Your task to perform on an android device: change notifications settings Image 0: 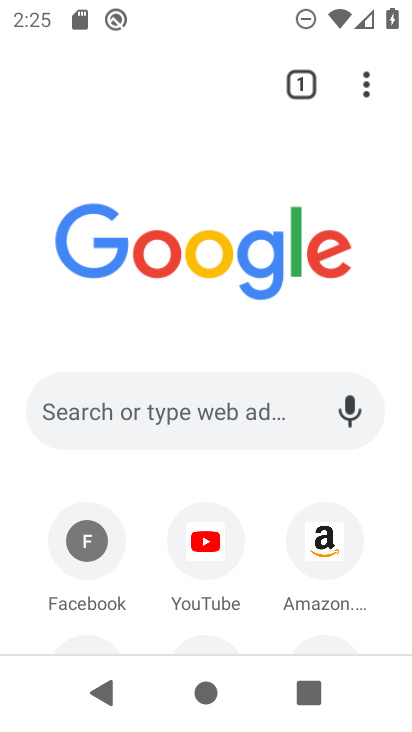
Step 0: press home button
Your task to perform on an android device: change notifications settings Image 1: 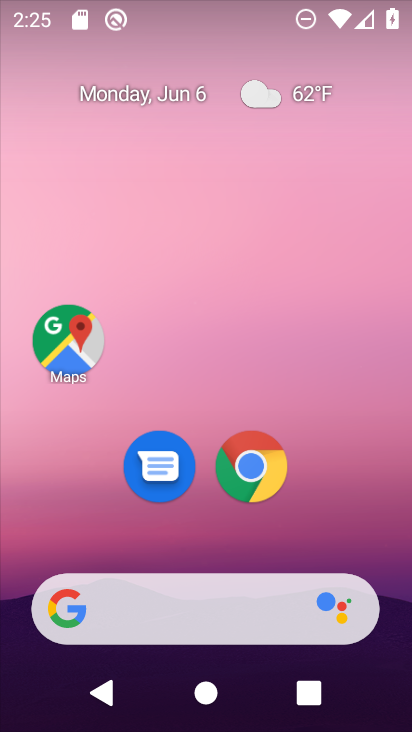
Step 1: drag from (226, 540) to (250, 25)
Your task to perform on an android device: change notifications settings Image 2: 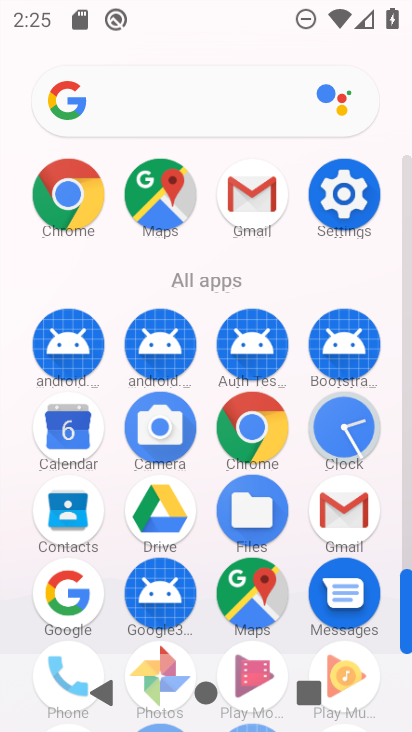
Step 2: press home button
Your task to perform on an android device: change notifications settings Image 3: 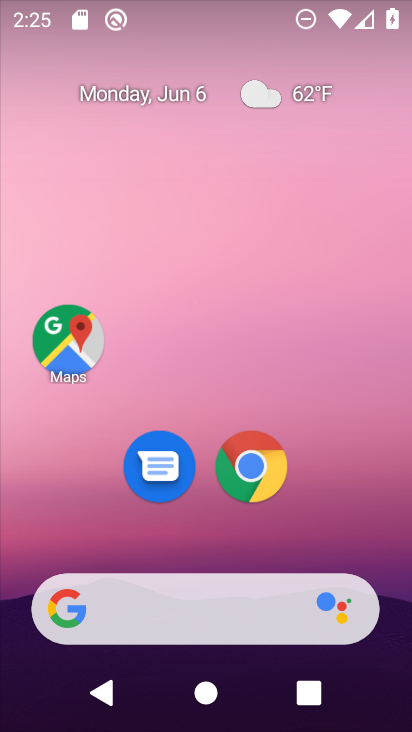
Step 3: drag from (217, 542) to (218, 172)
Your task to perform on an android device: change notifications settings Image 4: 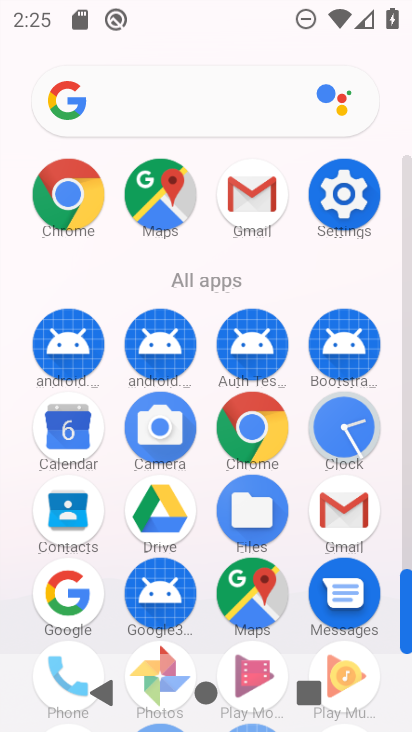
Step 4: click (344, 198)
Your task to perform on an android device: change notifications settings Image 5: 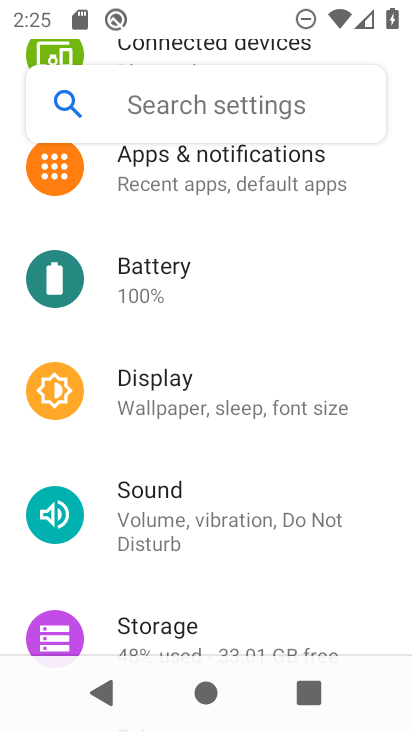
Step 5: drag from (265, 249) to (252, 559)
Your task to perform on an android device: change notifications settings Image 6: 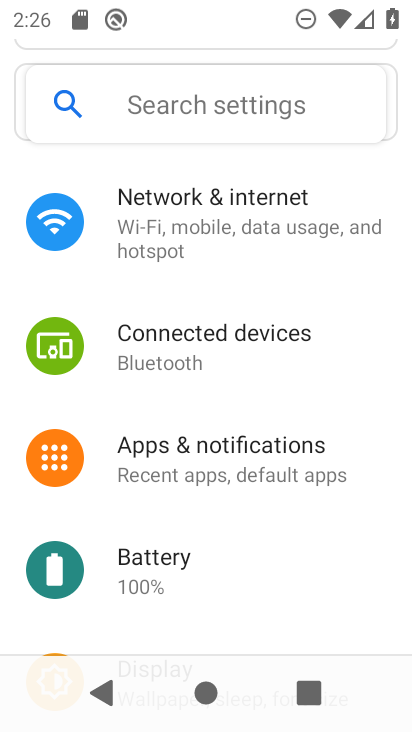
Step 6: click (137, 473)
Your task to perform on an android device: change notifications settings Image 7: 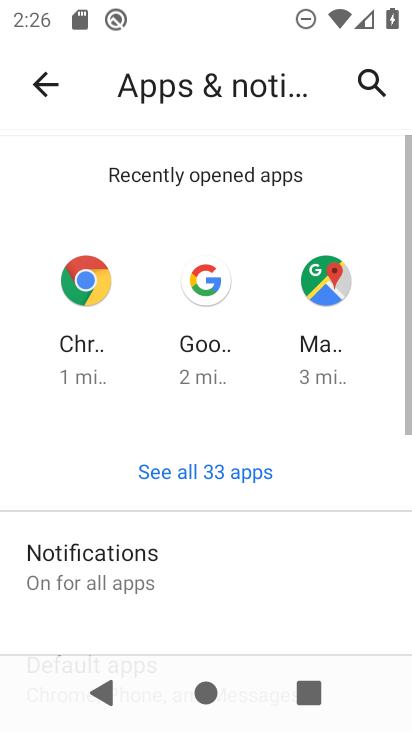
Step 7: drag from (189, 612) to (251, 260)
Your task to perform on an android device: change notifications settings Image 8: 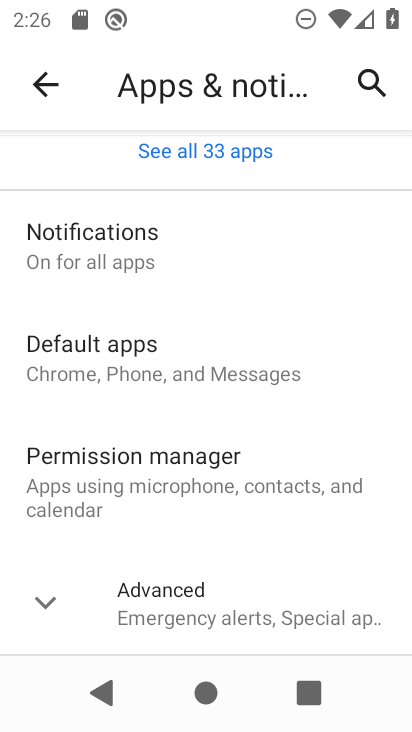
Step 8: click (168, 602)
Your task to perform on an android device: change notifications settings Image 9: 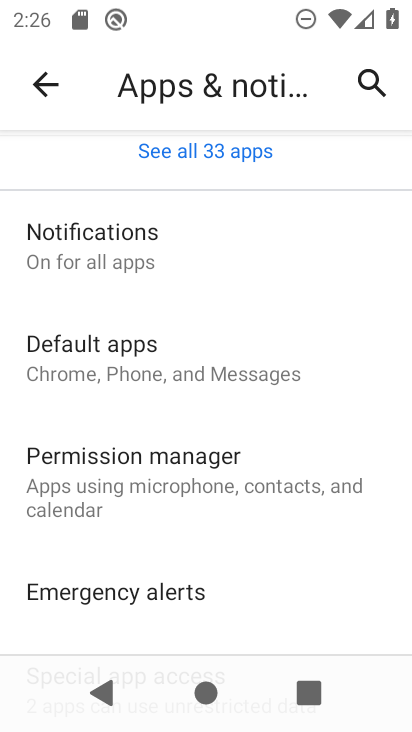
Step 9: drag from (170, 582) to (211, 409)
Your task to perform on an android device: change notifications settings Image 10: 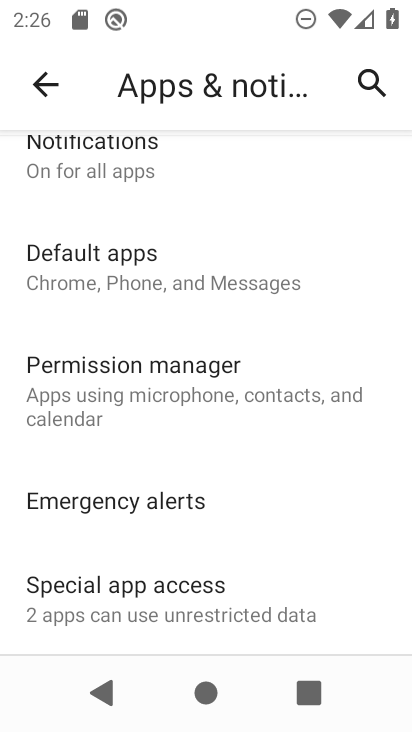
Step 10: click (109, 174)
Your task to perform on an android device: change notifications settings Image 11: 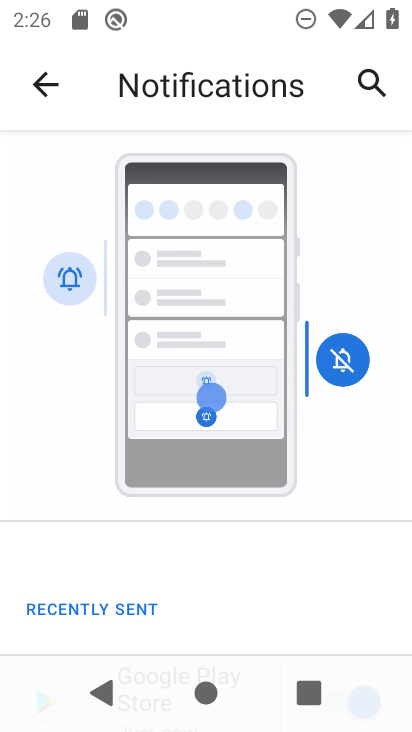
Step 11: drag from (201, 634) to (205, 362)
Your task to perform on an android device: change notifications settings Image 12: 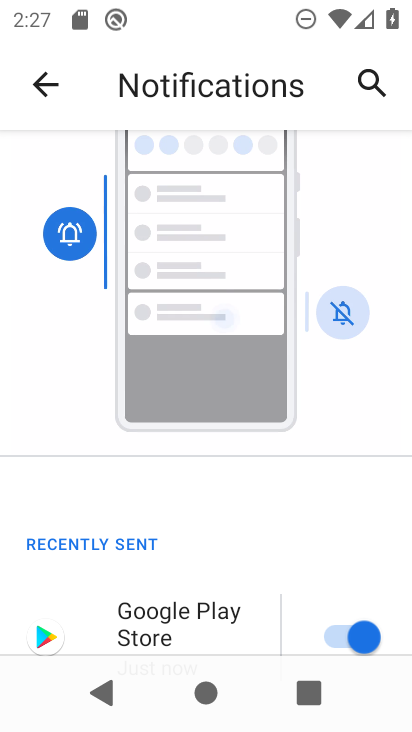
Step 12: drag from (228, 530) to (226, 360)
Your task to perform on an android device: change notifications settings Image 13: 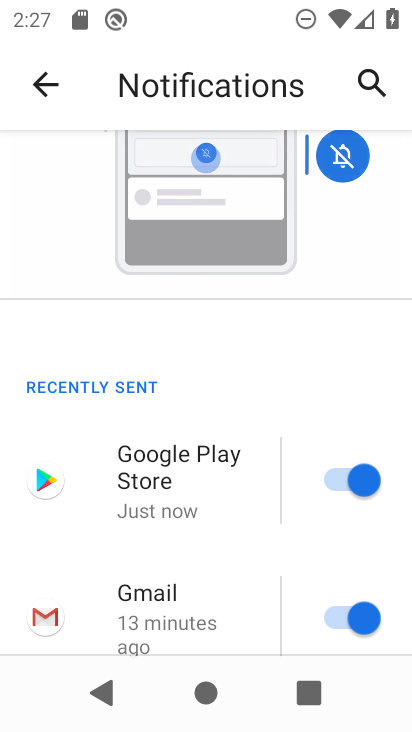
Step 13: drag from (219, 643) to (215, 359)
Your task to perform on an android device: change notifications settings Image 14: 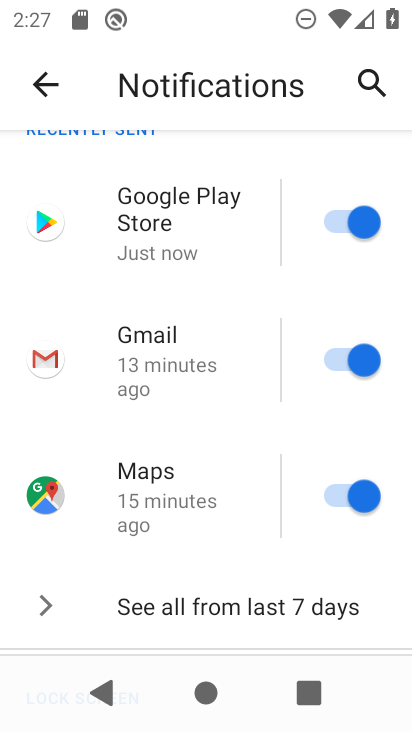
Step 14: drag from (205, 583) to (211, 243)
Your task to perform on an android device: change notifications settings Image 15: 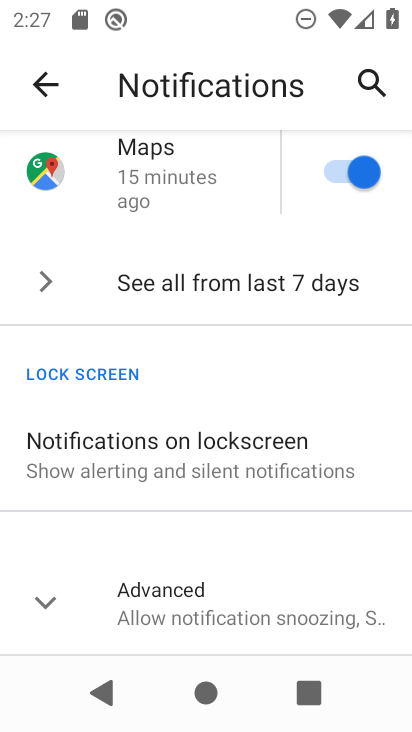
Step 15: click (188, 604)
Your task to perform on an android device: change notifications settings Image 16: 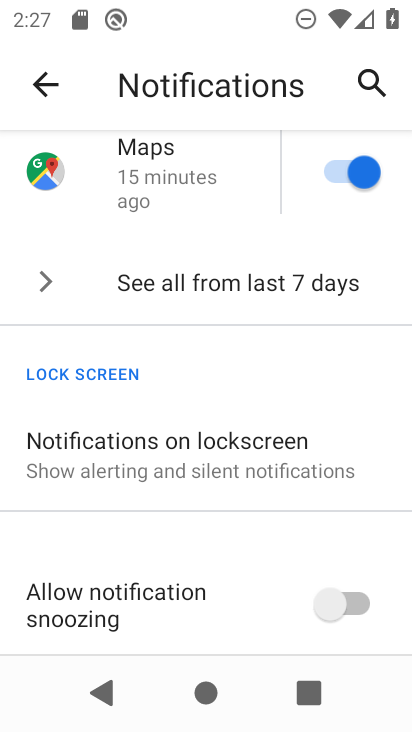
Step 16: drag from (187, 619) to (222, 381)
Your task to perform on an android device: change notifications settings Image 17: 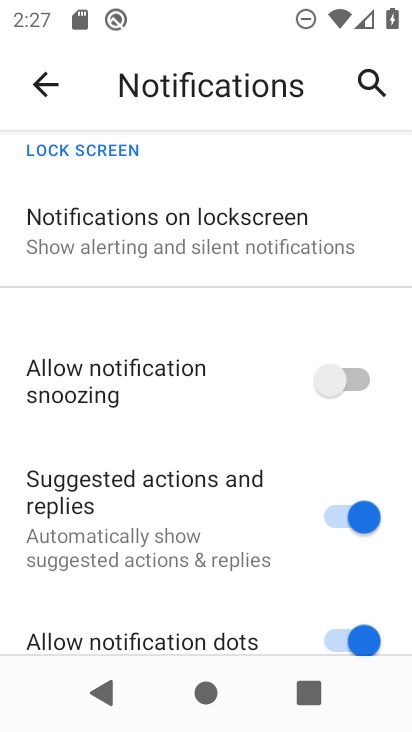
Step 17: click (237, 247)
Your task to perform on an android device: change notifications settings Image 18: 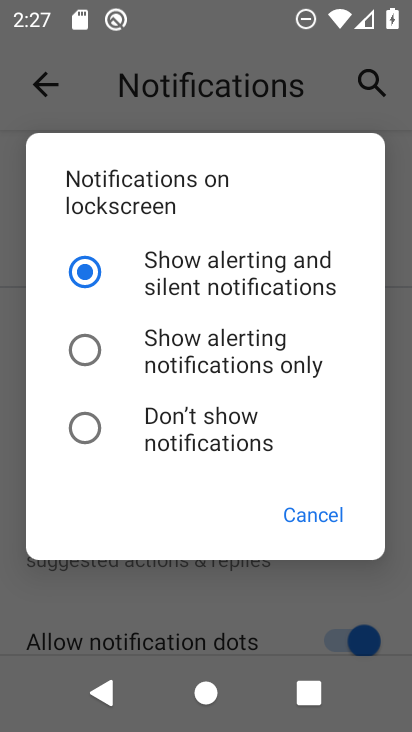
Step 18: click (88, 429)
Your task to perform on an android device: change notifications settings Image 19: 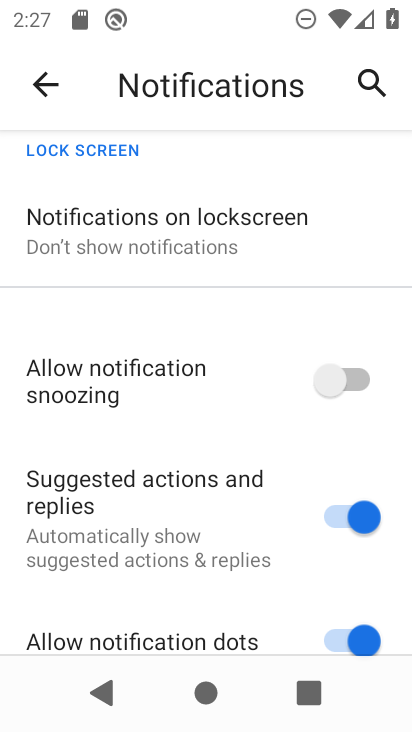
Step 19: task complete